Your task to perform on an android device: change alarm snooze length Image 0: 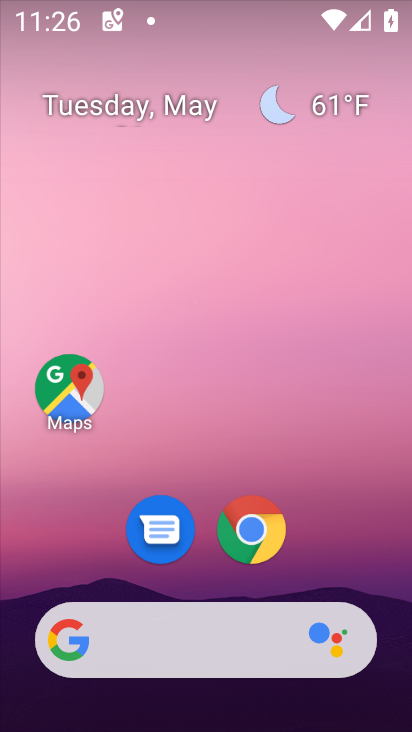
Step 0: drag from (344, 552) to (163, 200)
Your task to perform on an android device: change alarm snooze length Image 1: 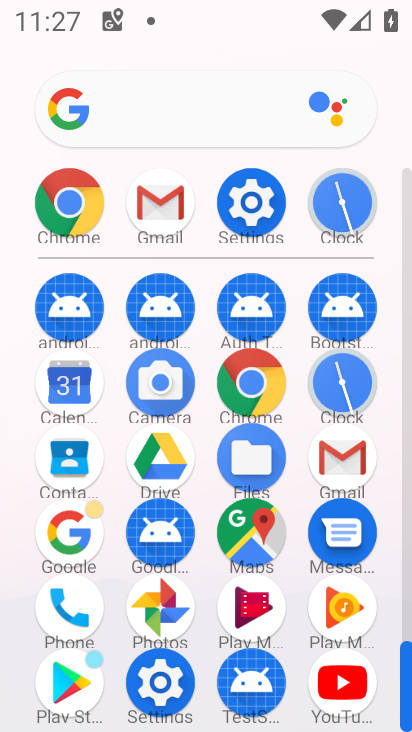
Step 1: click (338, 391)
Your task to perform on an android device: change alarm snooze length Image 2: 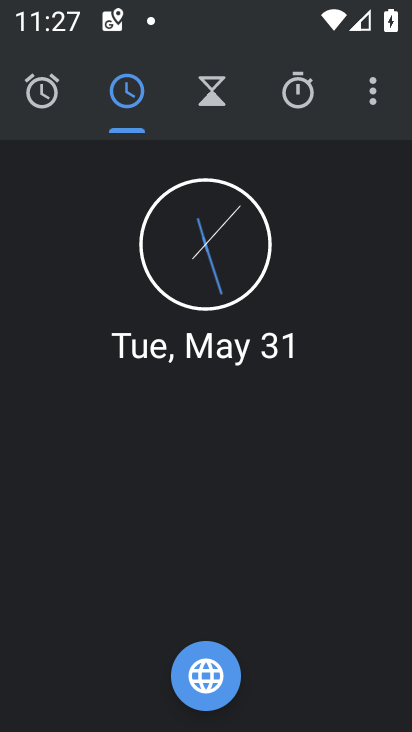
Step 2: click (375, 102)
Your task to perform on an android device: change alarm snooze length Image 3: 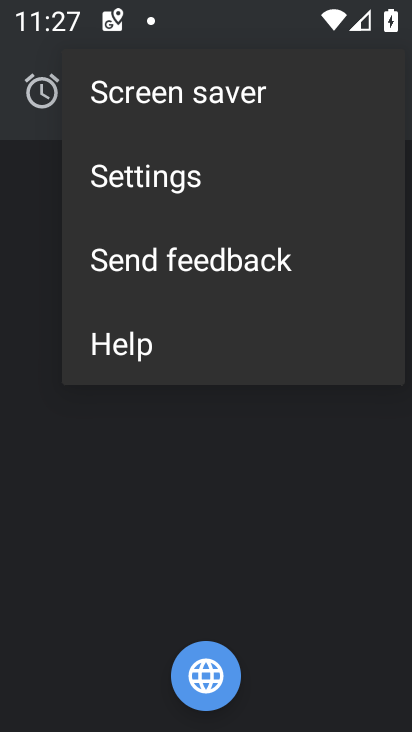
Step 3: click (180, 174)
Your task to perform on an android device: change alarm snooze length Image 4: 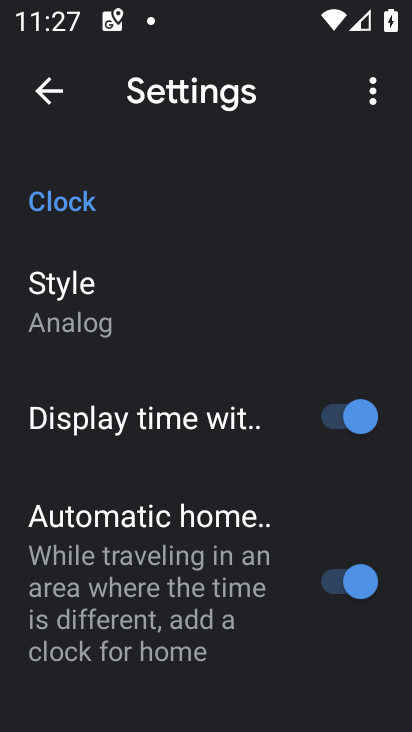
Step 4: drag from (92, 597) to (83, 201)
Your task to perform on an android device: change alarm snooze length Image 5: 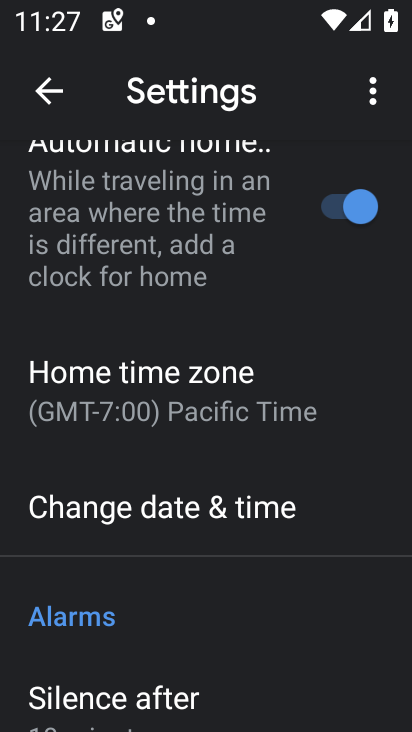
Step 5: drag from (134, 610) to (111, 237)
Your task to perform on an android device: change alarm snooze length Image 6: 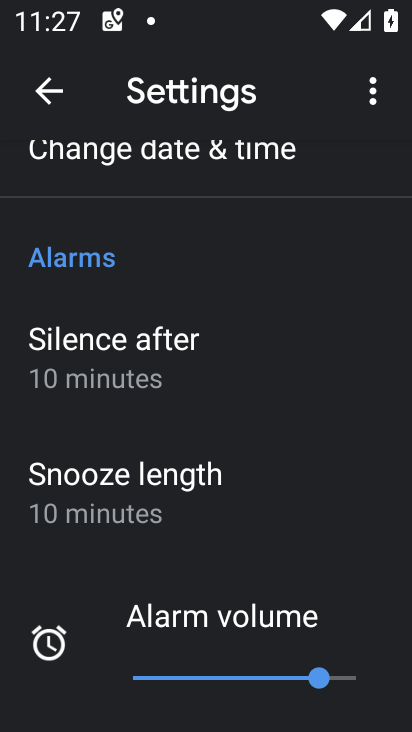
Step 6: click (95, 499)
Your task to perform on an android device: change alarm snooze length Image 7: 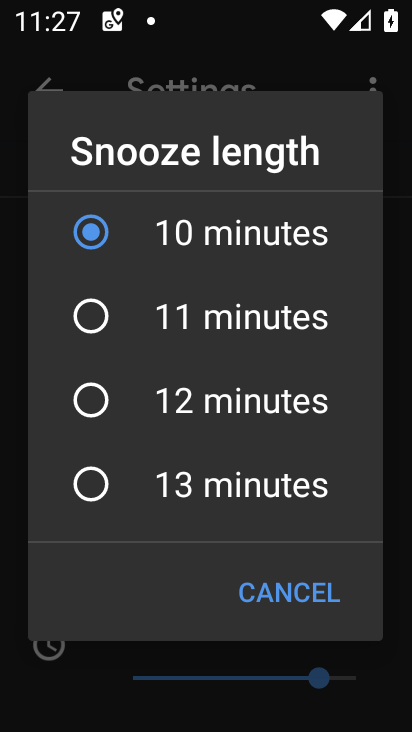
Step 7: click (89, 496)
Your task to perform on an android device: change alarm snooze length Image 8: 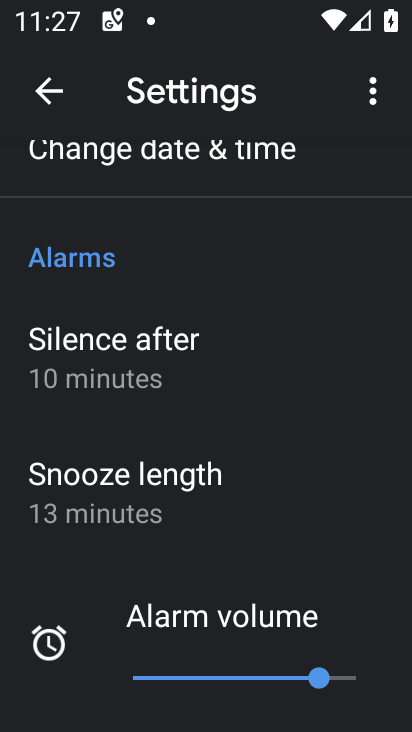
Step 8: task complete